Your task to perform on an android device: What is the recent news? Image 0: 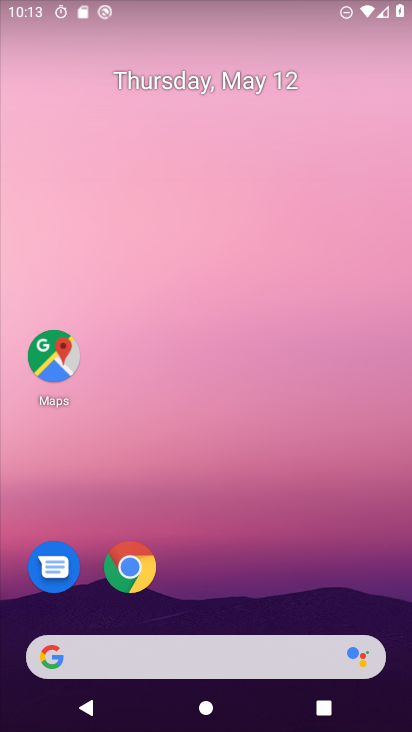
Step 0: drag from (198, 694) to (313, 212)
Your task to perform on an android device: What is the recent news? Image 1: 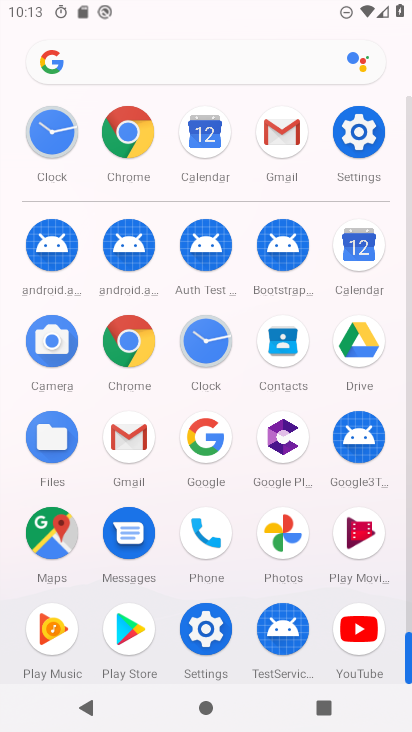
Step 1: click (225, 435)
Your task to perform on an android device: What is the recent news? Image 2: 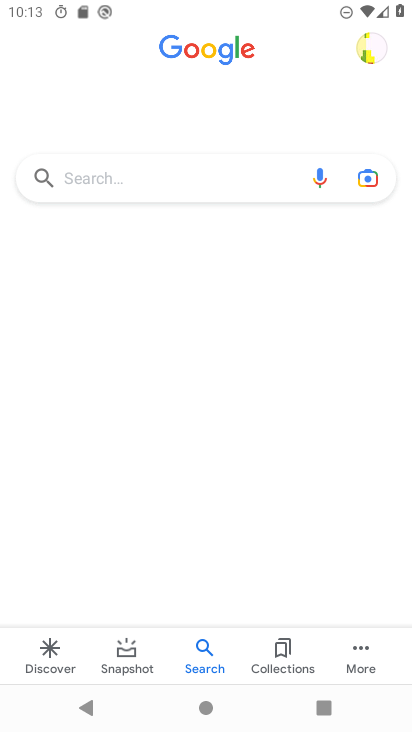
Step 2: click (242, 176)
Your task to perform on an android device: What is the recent news? Image 3: 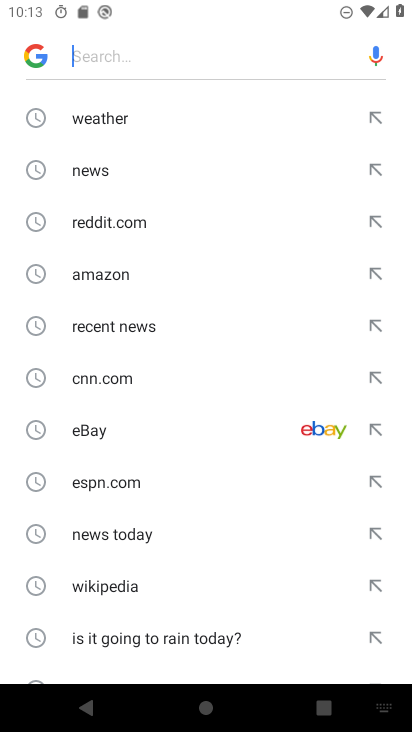
Step 3: click (168, 176)
Your task to perform on an android device: What is the recent news? Image 4: 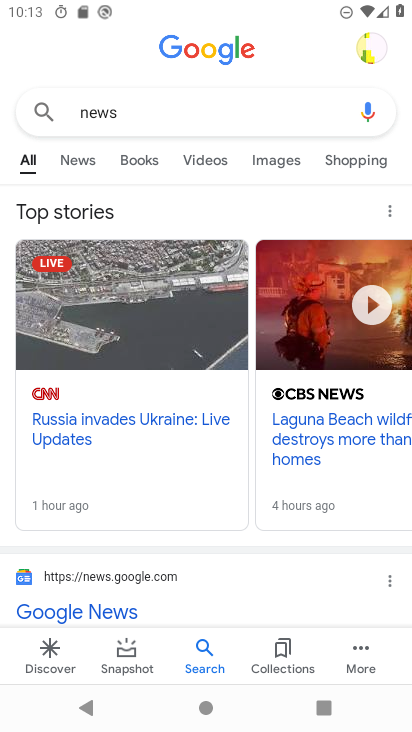
Step 4: click (82, 159)
Your task to perform on an android device: What is the recent news? Image 5: 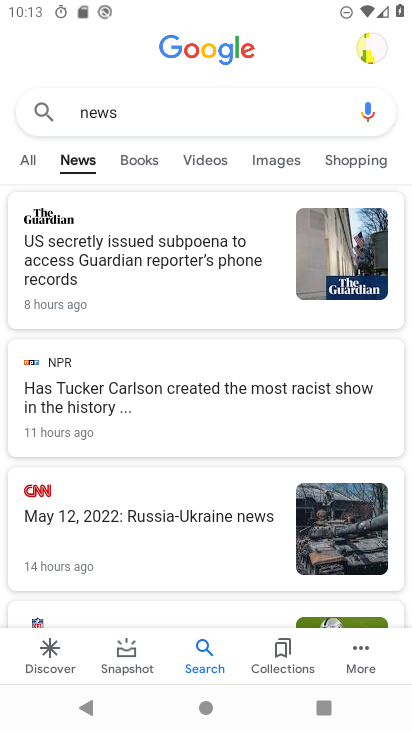
Step 5: task complete